Your task to perform on an android device: change the clock display to digital Image 0: 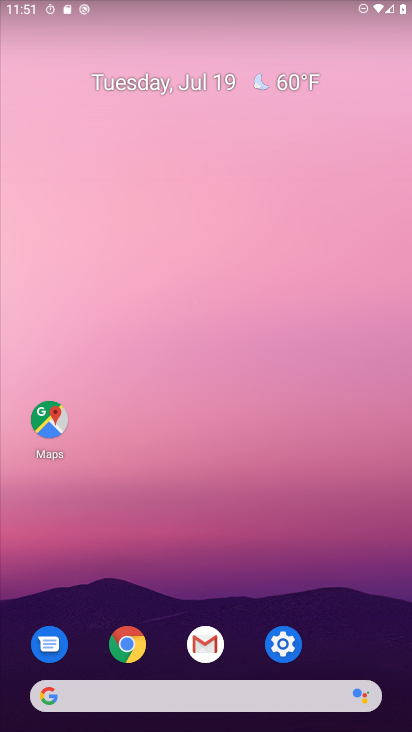
Step 0: press home button
Your task to perform on an android device: change the clock display to digital Image 1: 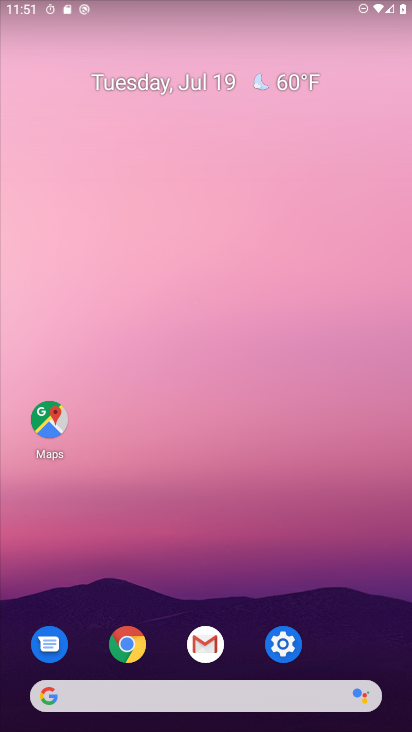
Step 1: drag from (210, 721) to (280, 163)
Your task to perform on an android device: change the clock display to digital Image 2: 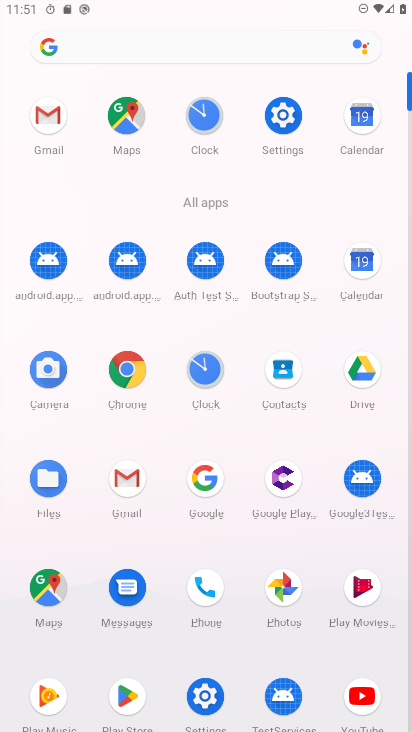
Step 2: click (198, 373)
Your task to perform on an android device: change the clock display to digital Image 3: 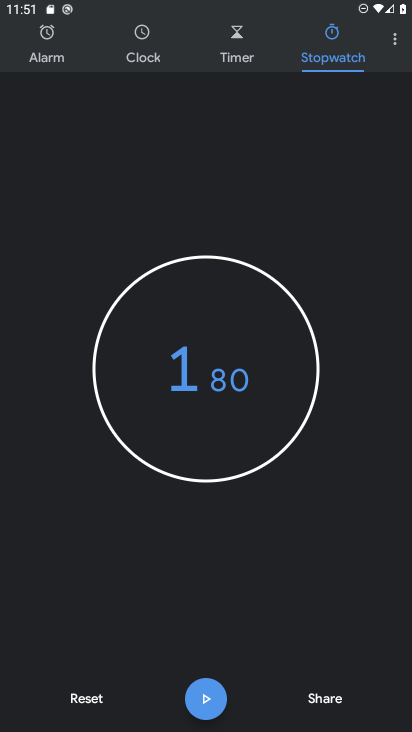
Step 3: click (396, 47)
Your task to perform on an android device: change the clock display to digital Image 4: 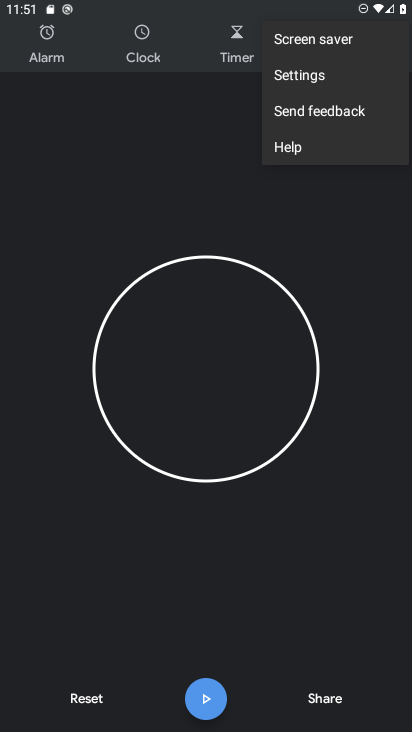
Step 4: click (305, 86)
Your task to perform on an android device: change the clock display to digital Image 5: 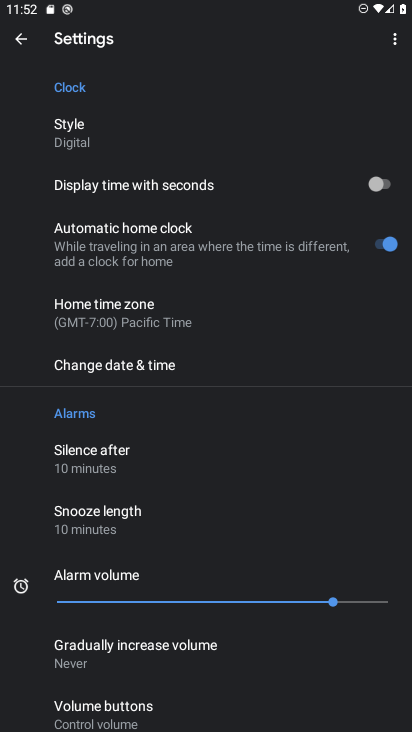
Step 5: click (96, 152)
Your task to perform on an android device: change the clock display to digital Image 6: 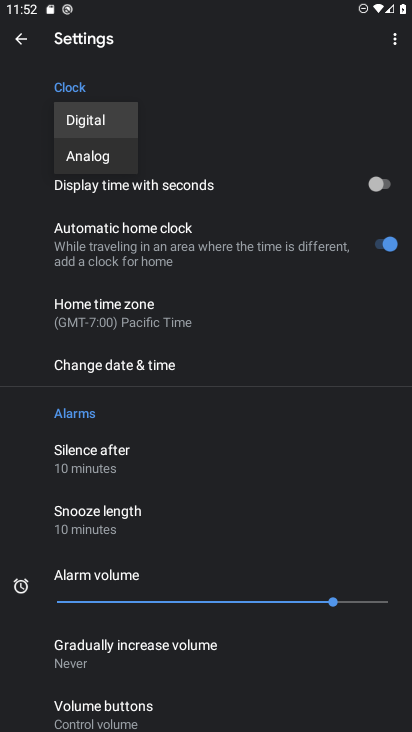
Step 6: click (95, 123)
Your task to perform on an android device: change the clock display to digital Image 7: 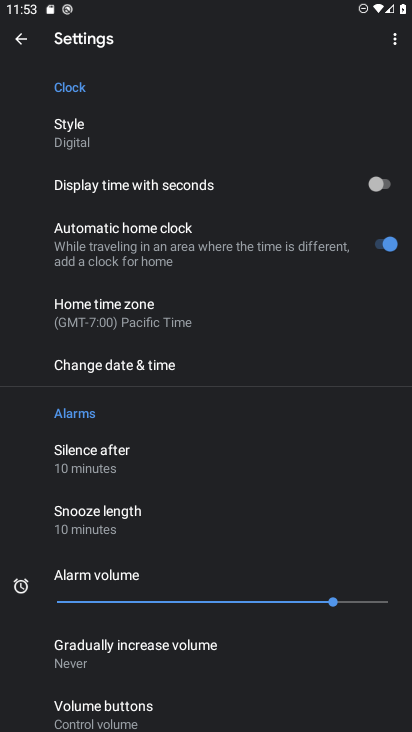
Step 7: task complete